Your task to perform on an android device: Open ESPN.com Image 0: 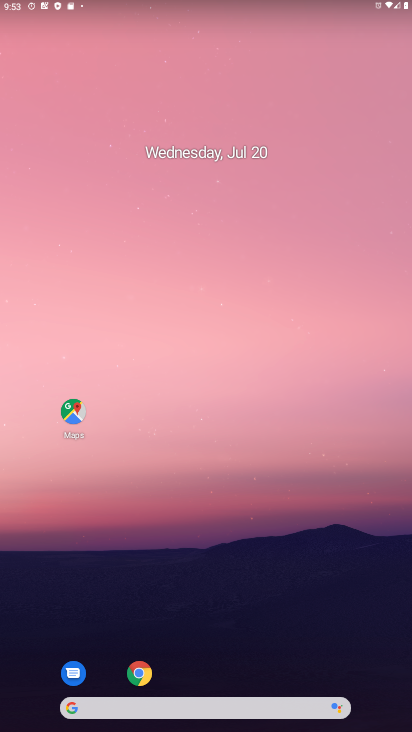
Step 0: drag from (202, 725) to (192, 308)
Your task to perform on an android device: Open ESPN.com Image 1: 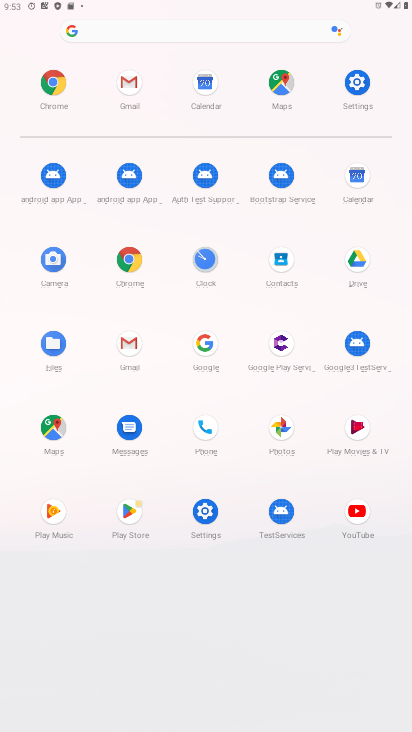
Step 1: click (53, 74)
Your task to perform on an android device: Open ESPN.com Image 2: 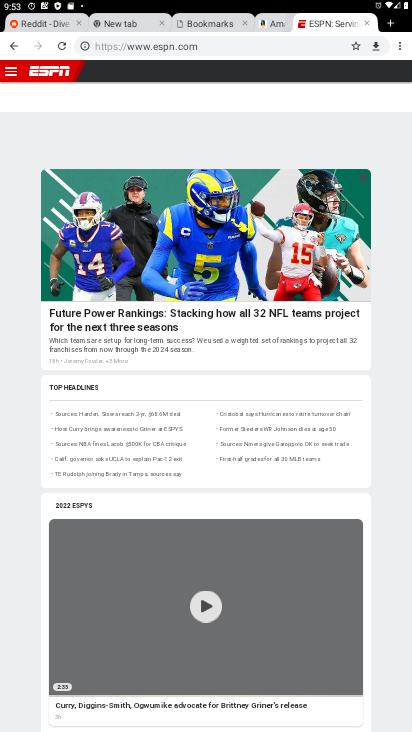
Step 2: task complete